Your task to perform on an android device: move a message to another label in the gmail app Image 0: 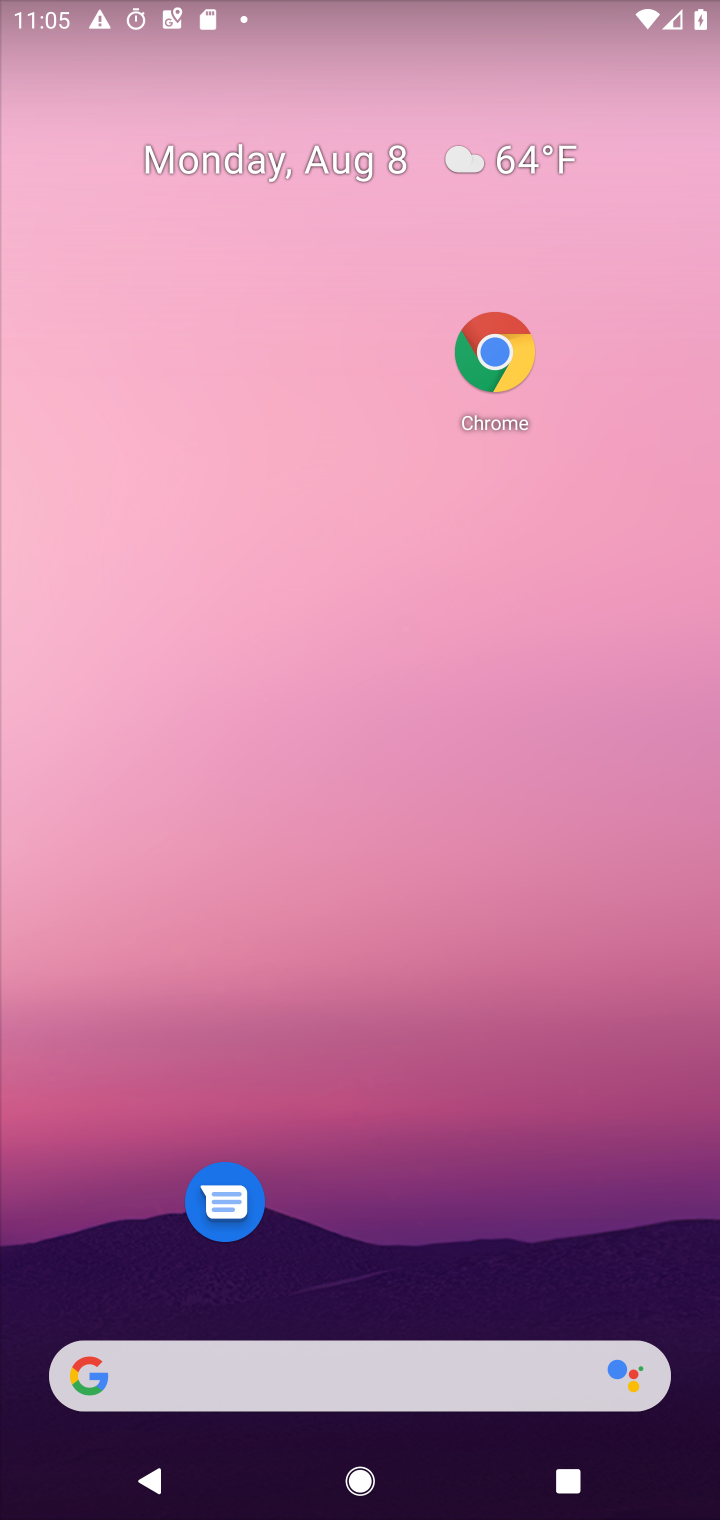
Step 0: drag from (360, 1322) to (295, 36)
Your task to perform on an android device: move a message to another label in the gmail app Image 1: 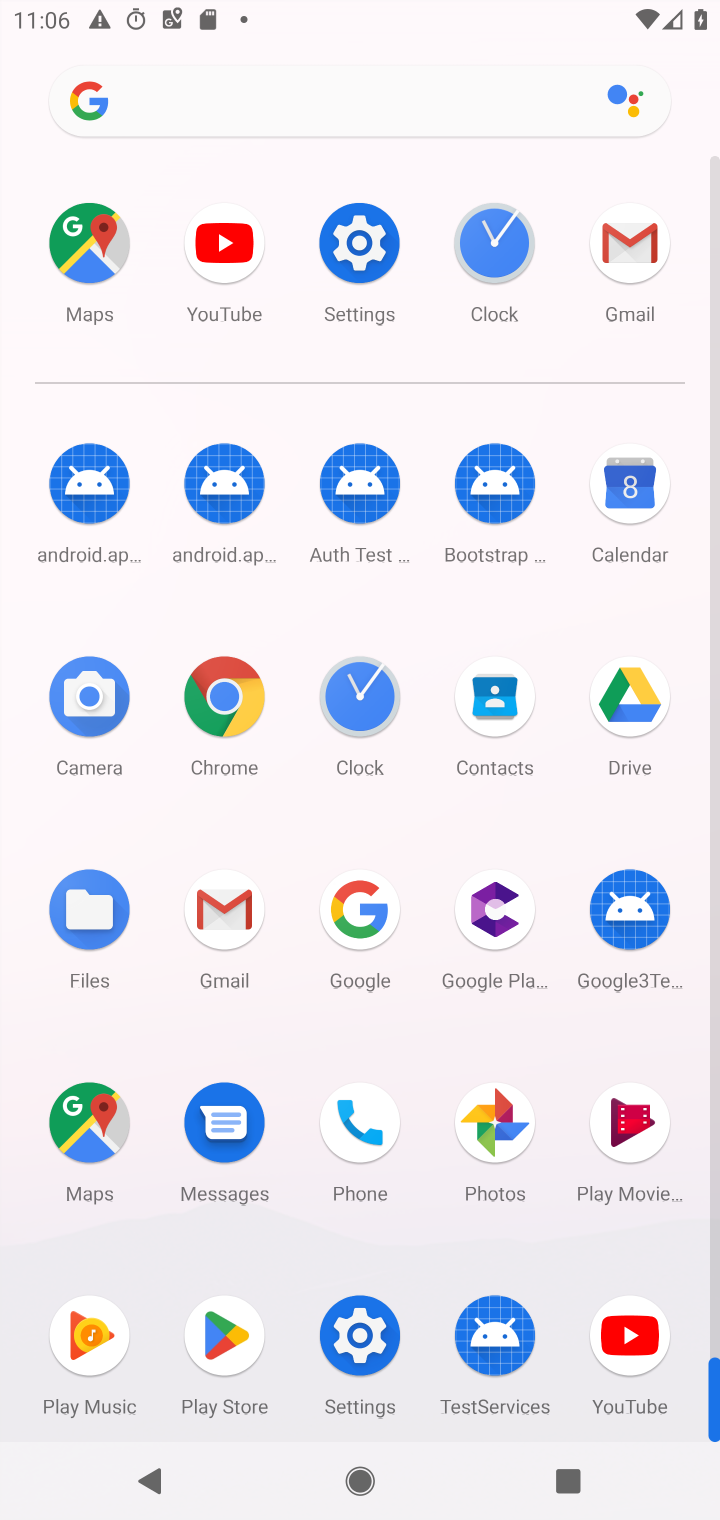
Step 1: click (228, 920)
Your task to perform on an android device: move a message to another label in the gmail app Image 2: 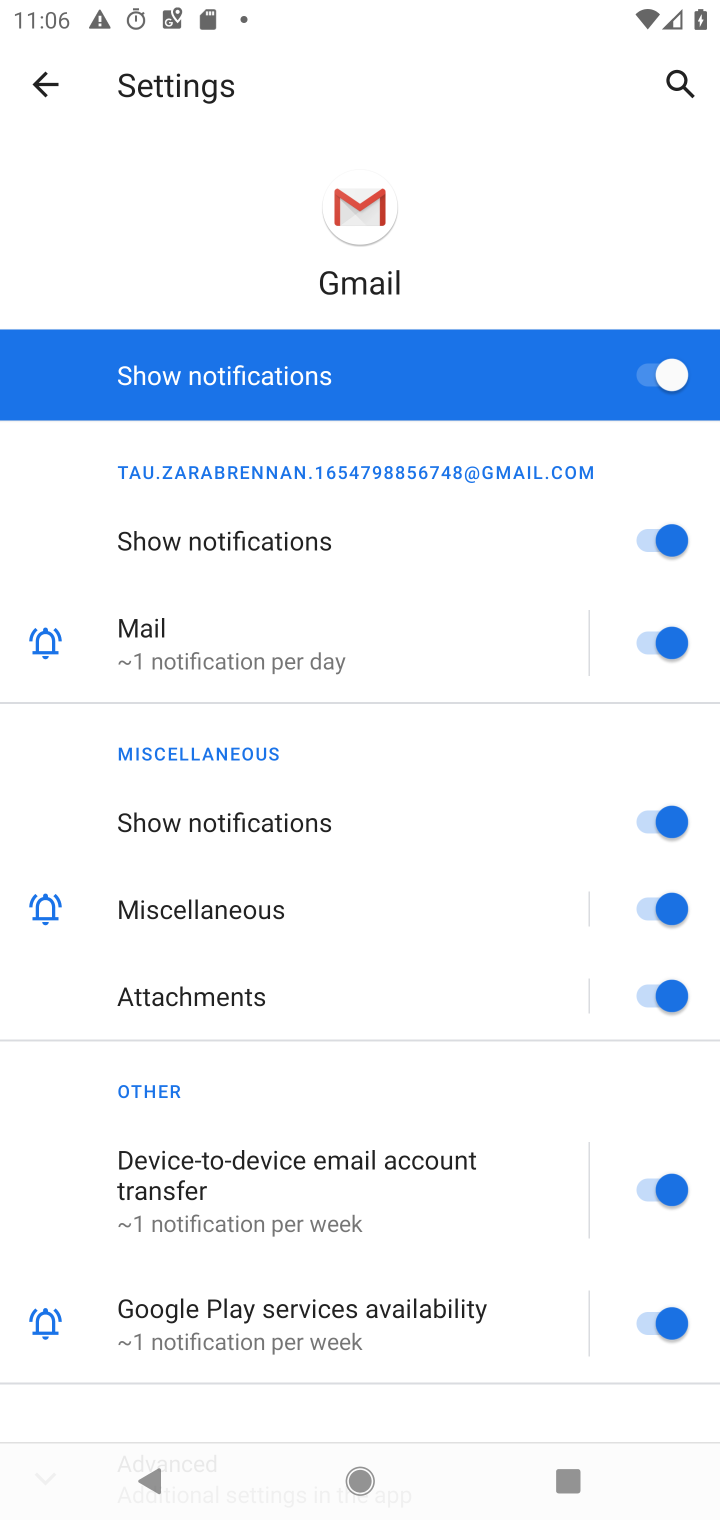
Step 2: click (35, 97)
Your task to perform on an android device: move a message to another label in the gmail app Image 3: 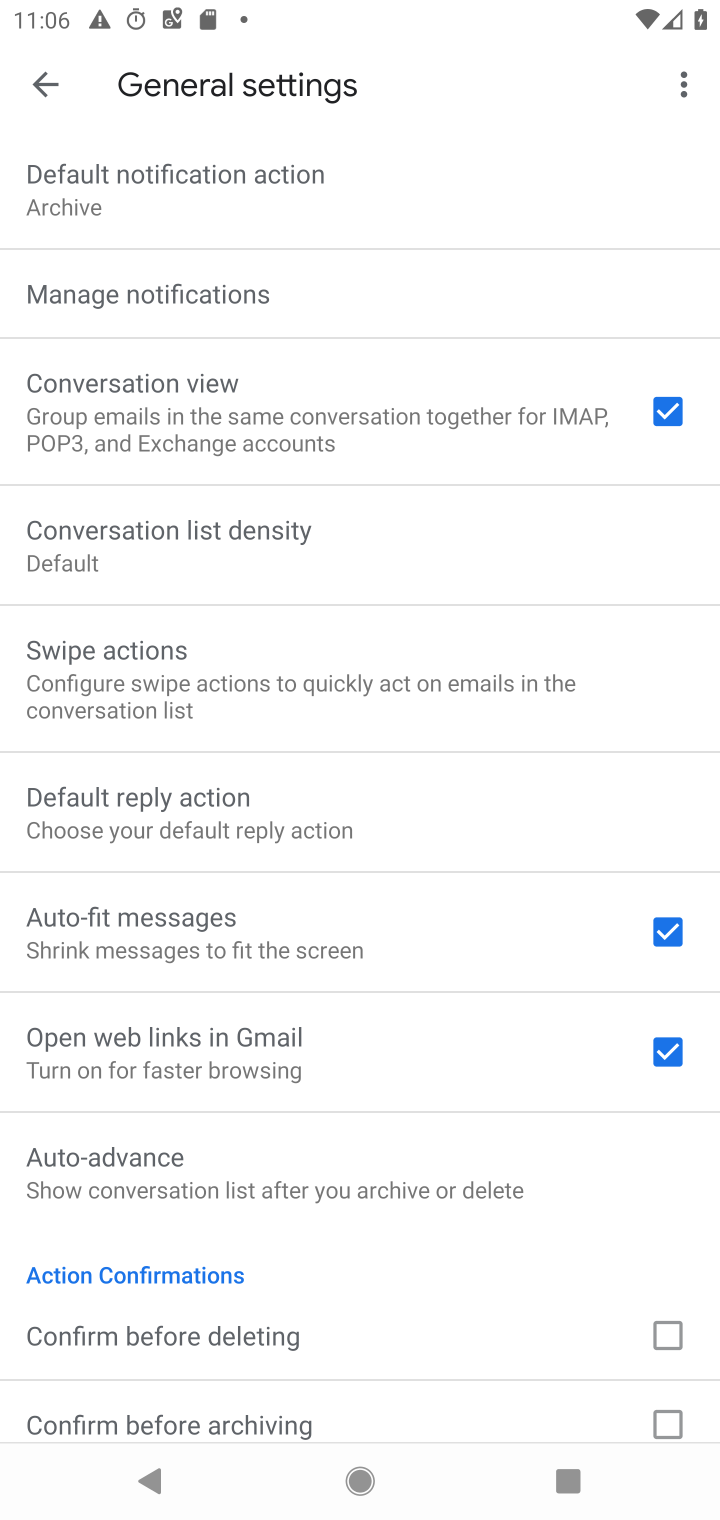
Step 3: click (35, 97)
Your task to perform on an android device: move a message to another label in the gmail app Image 4: 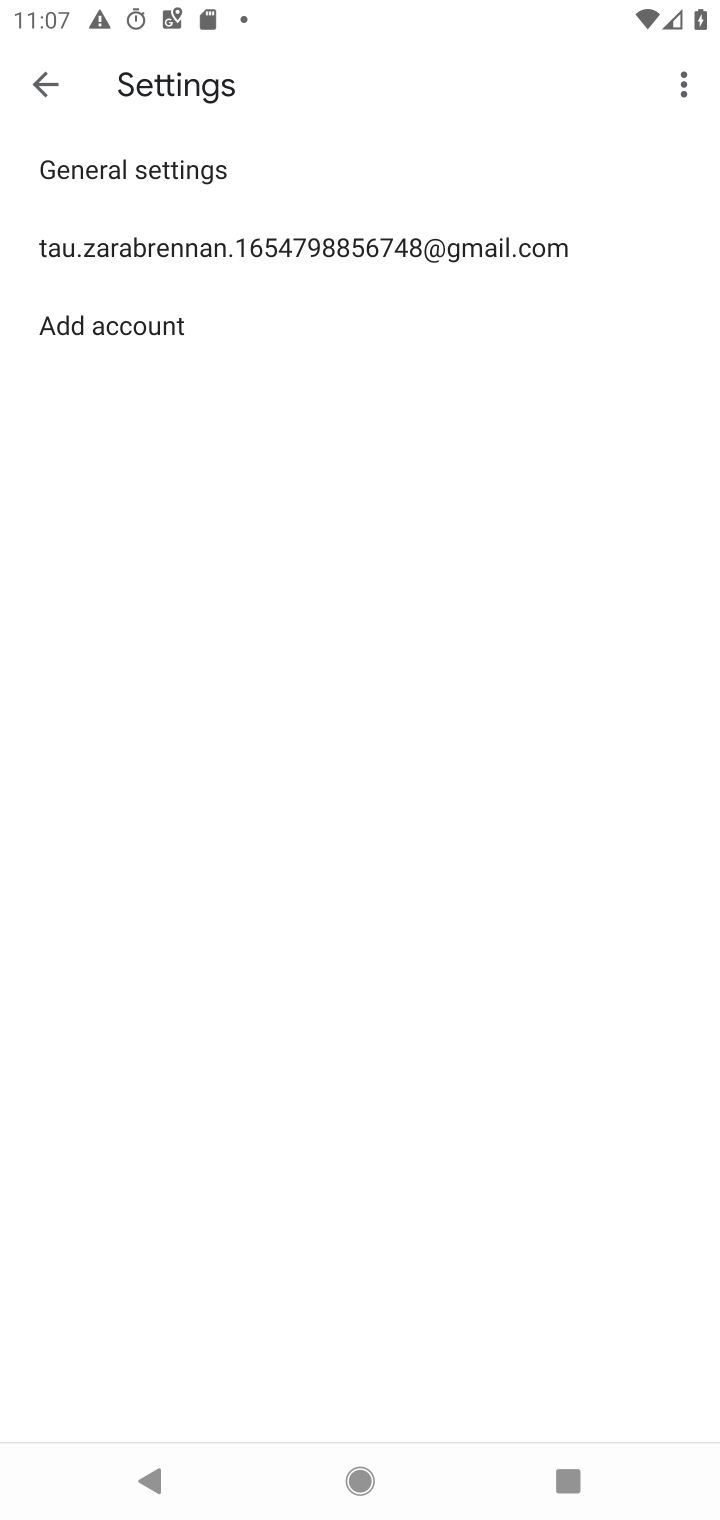
Step 4: click (32, 82)
Your task to perform on an android device: move a message to another label in the gmail app Image 5: 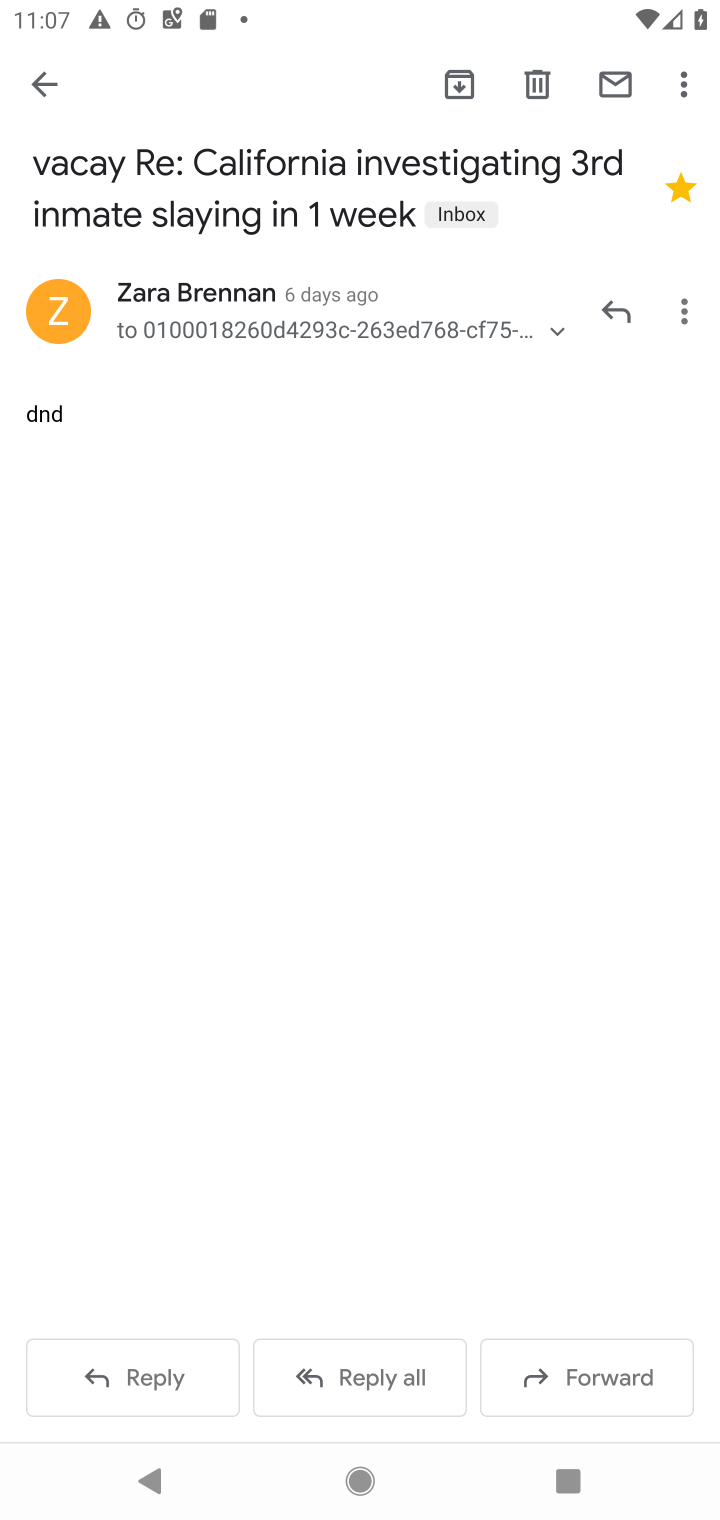
Step 5: click (32, 82)
Your task to perform on an android device: move a message to another label in the gmail app Image 6: 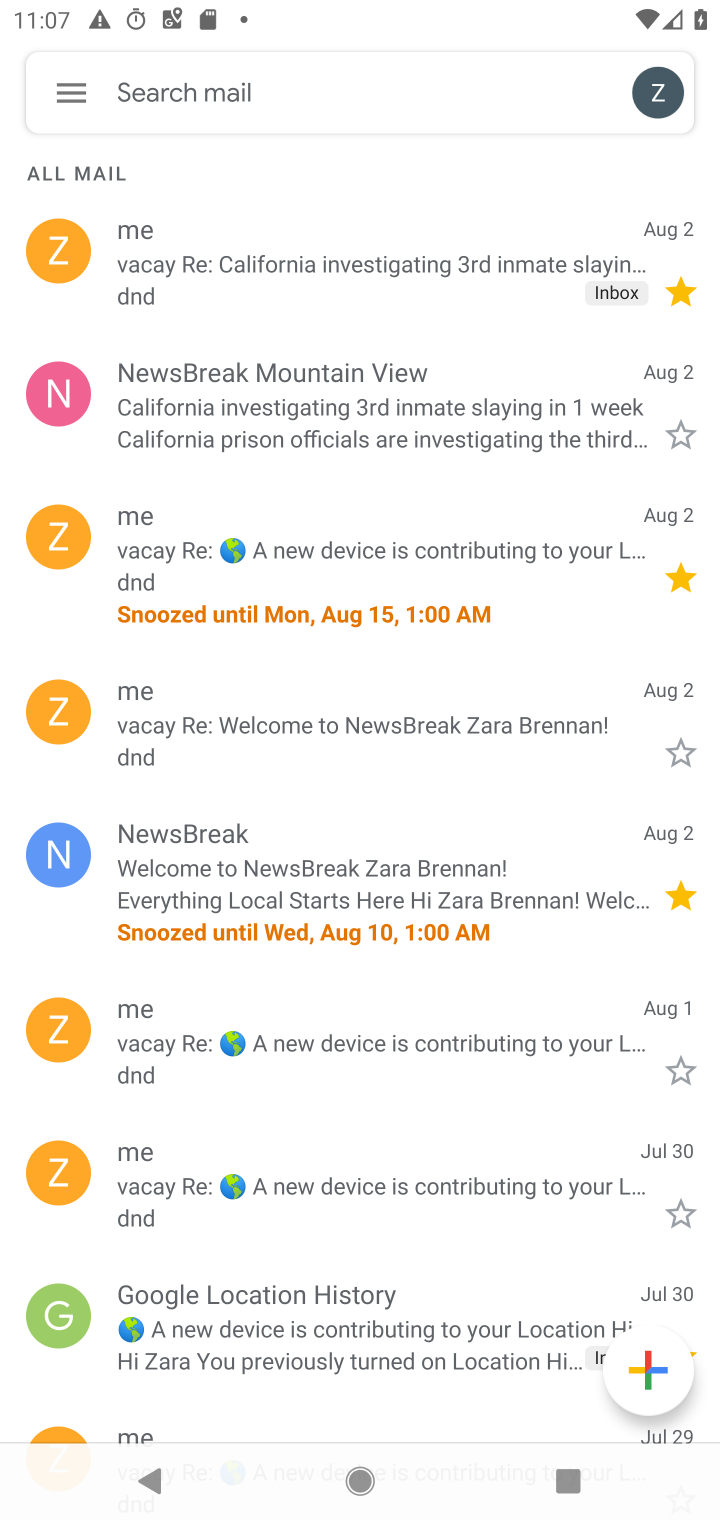
Step 6: click (344, 727)
Your task to perform on an android device: move a message to another label in the gmail app Image 7: 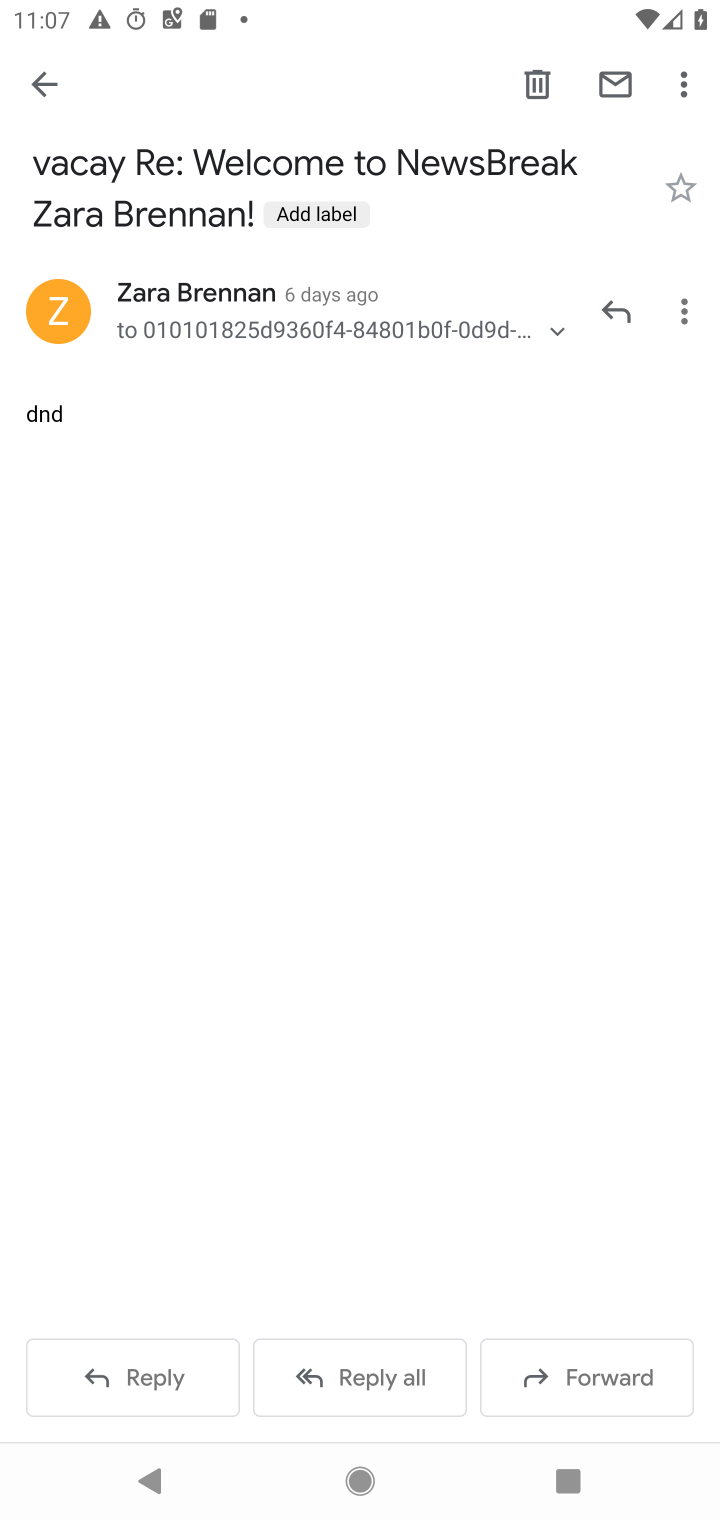
Step 7: click (685, 83)
Your task to perform on an android device: move a message to another label in the gmail app Image 8: 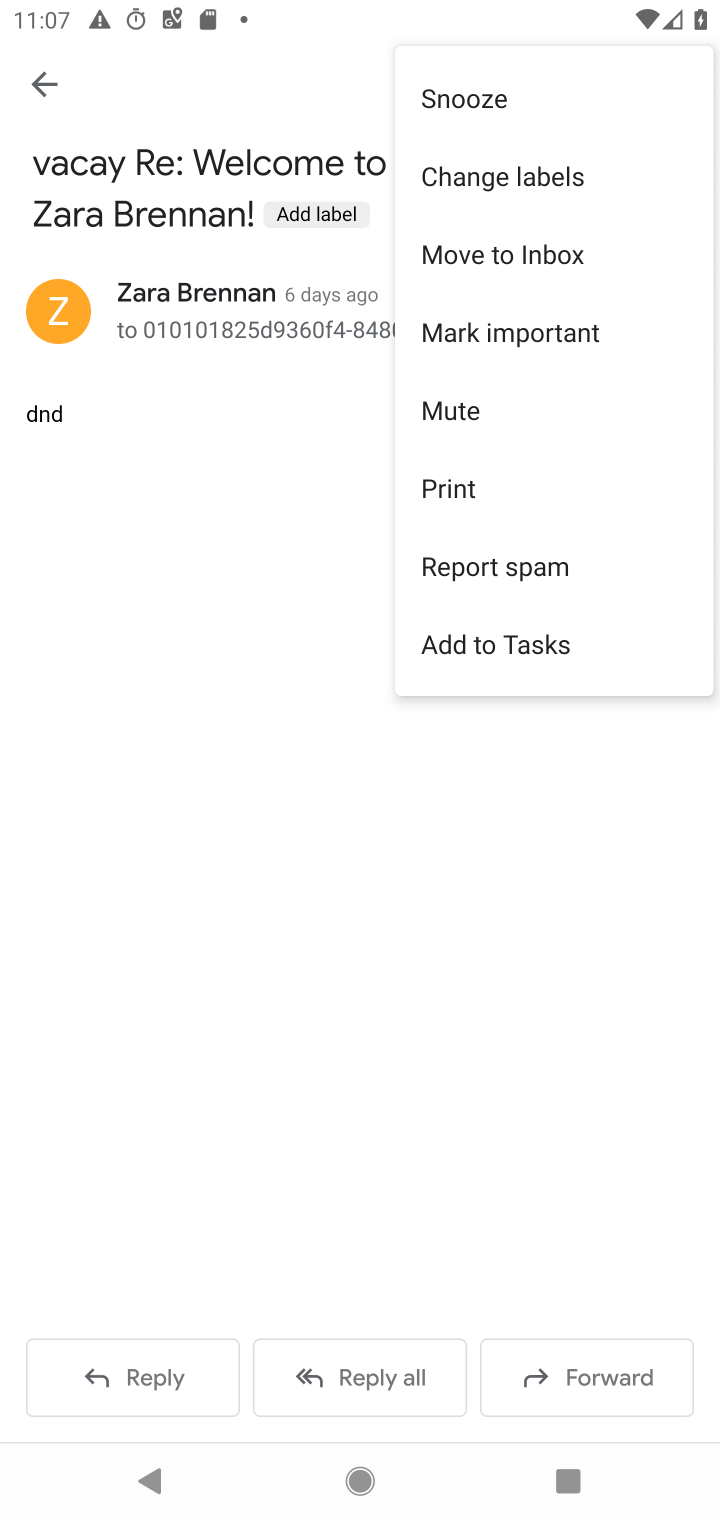
Step 8: click (608, 179)
Your task to perform on an android device: move a message to another label in the gmail app Image 9: 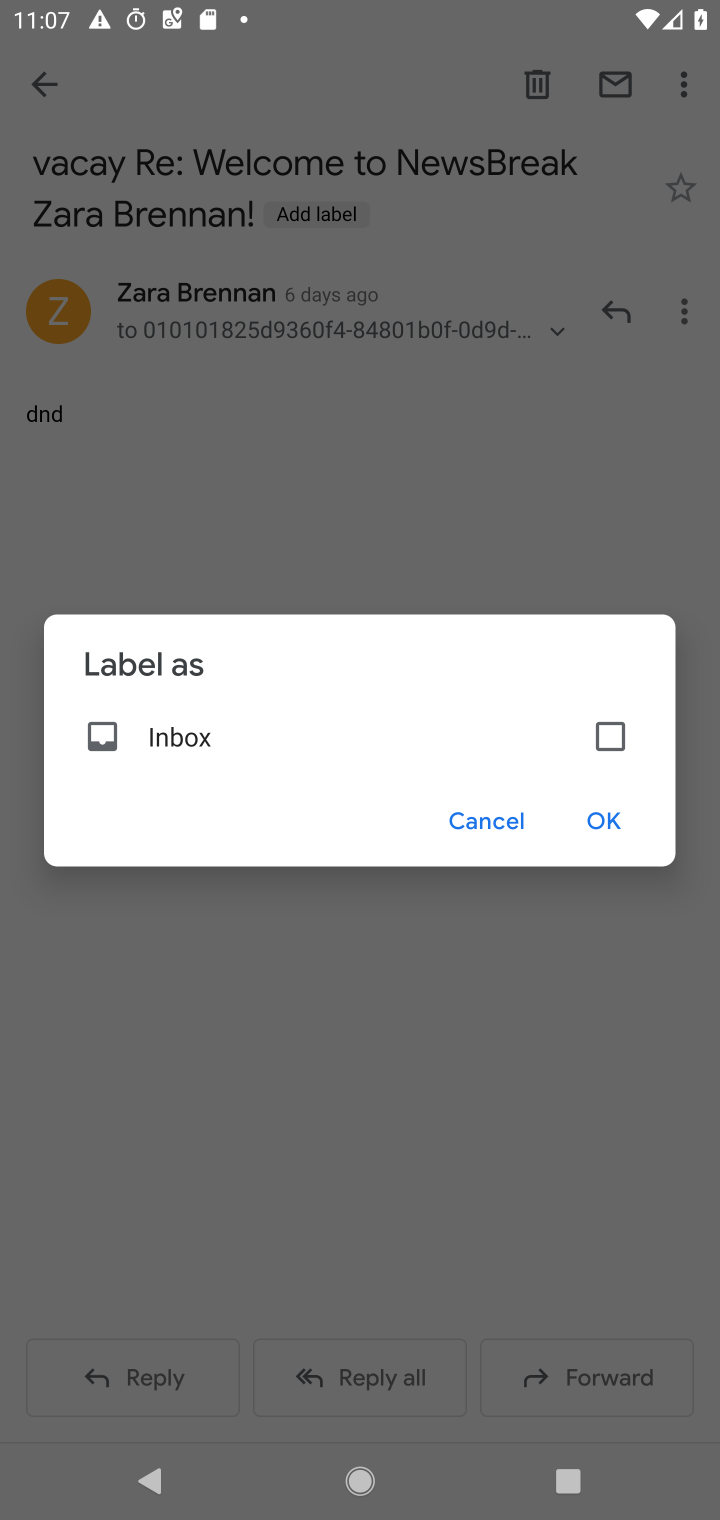
Step 9: click (615, 746)
Your task to perform on an android device: move a message to another label in the gmail app Image 10: 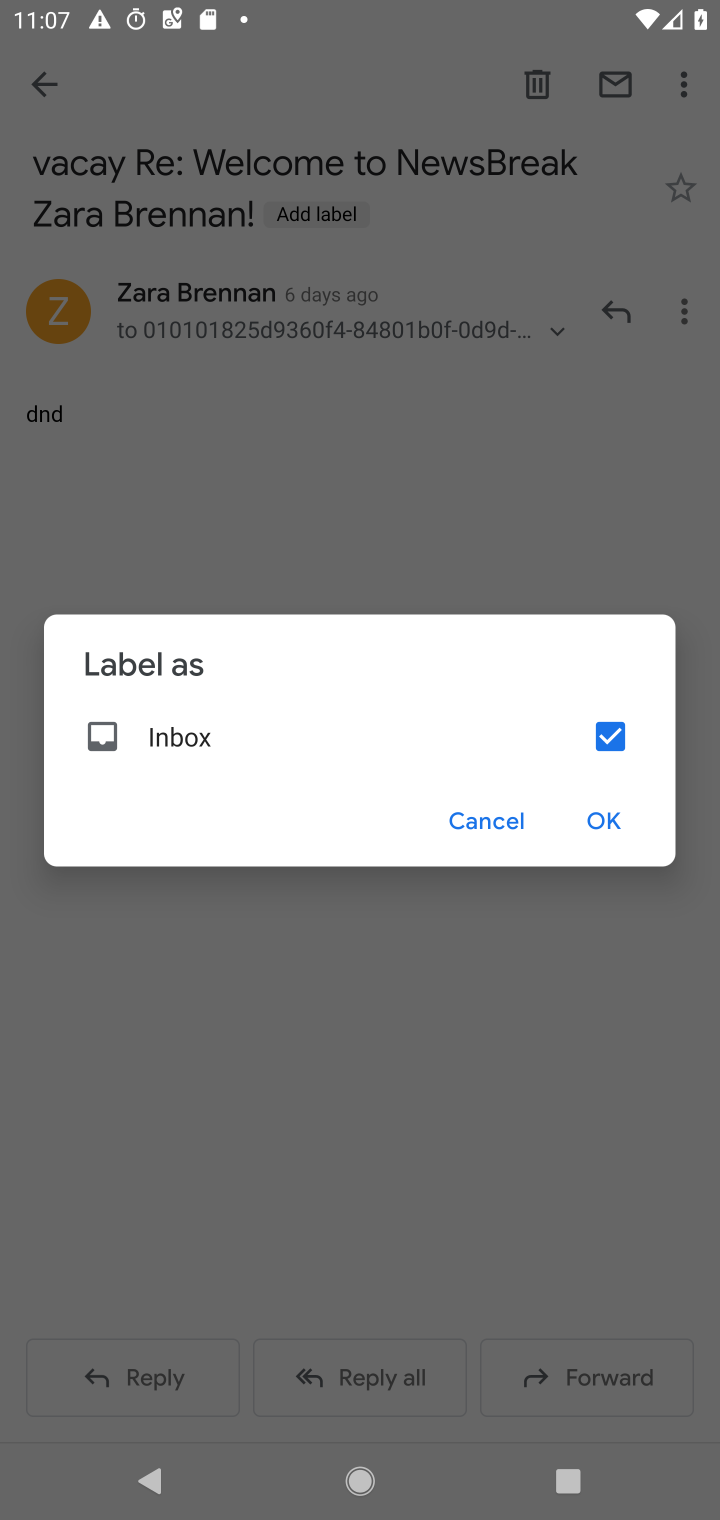
Step 10: click (597, 829)
Your task to perform on an android device: move a message to another label in the gmail app Image 11: 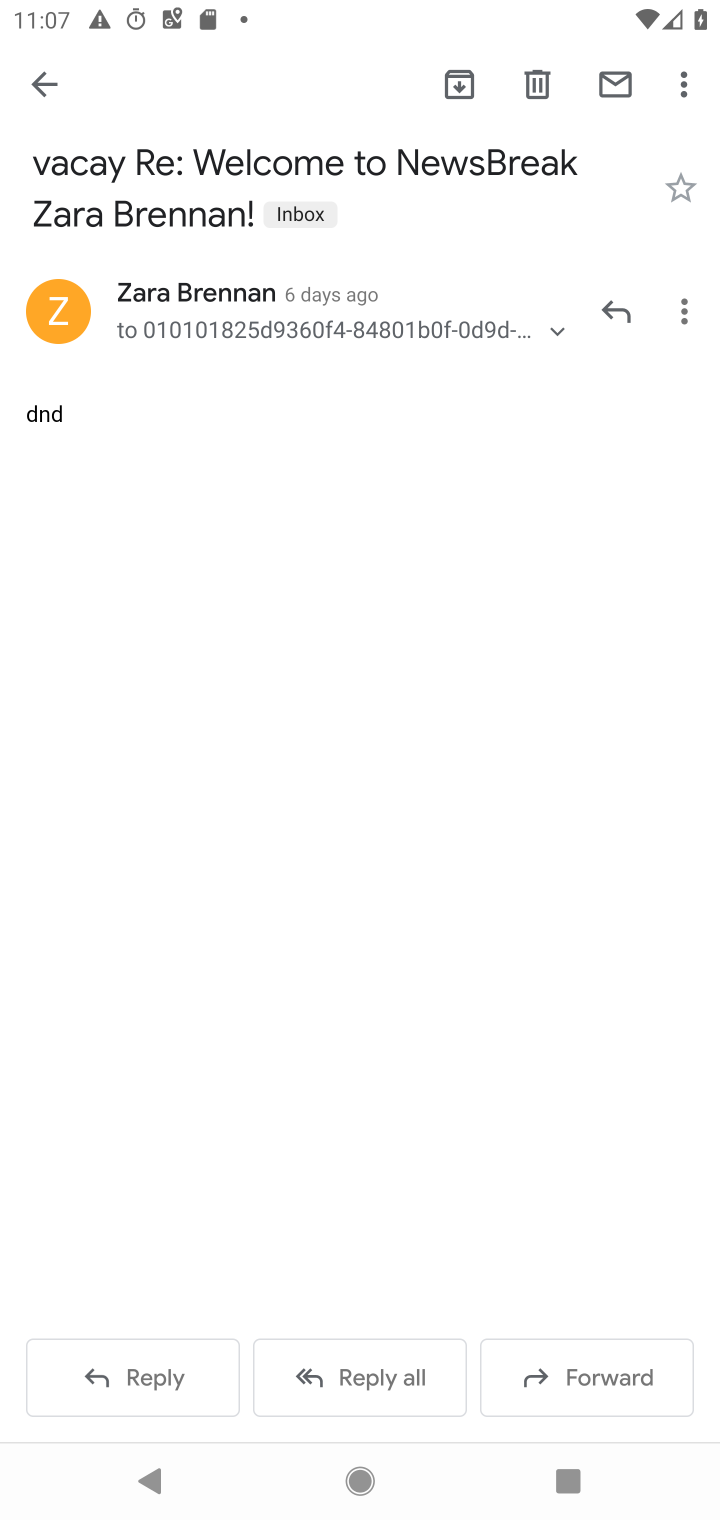
Step 11: task complete